Your task to perform on an android device: uninstall "Google Calendar" Image 0: 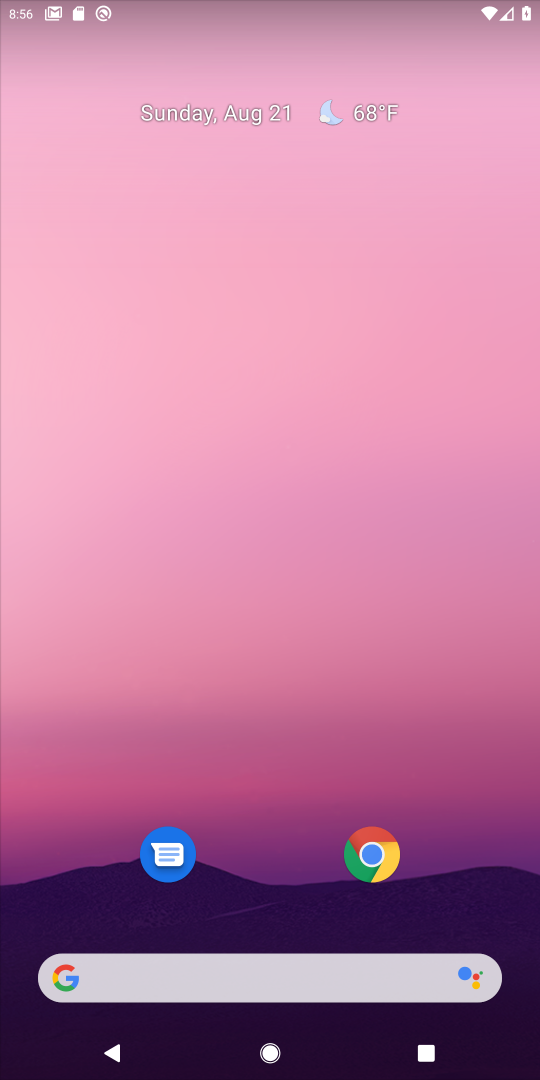
Step 0: click (264, 36)
Your task to perform on an android device: uninstall "Google Calendar" Image 1: 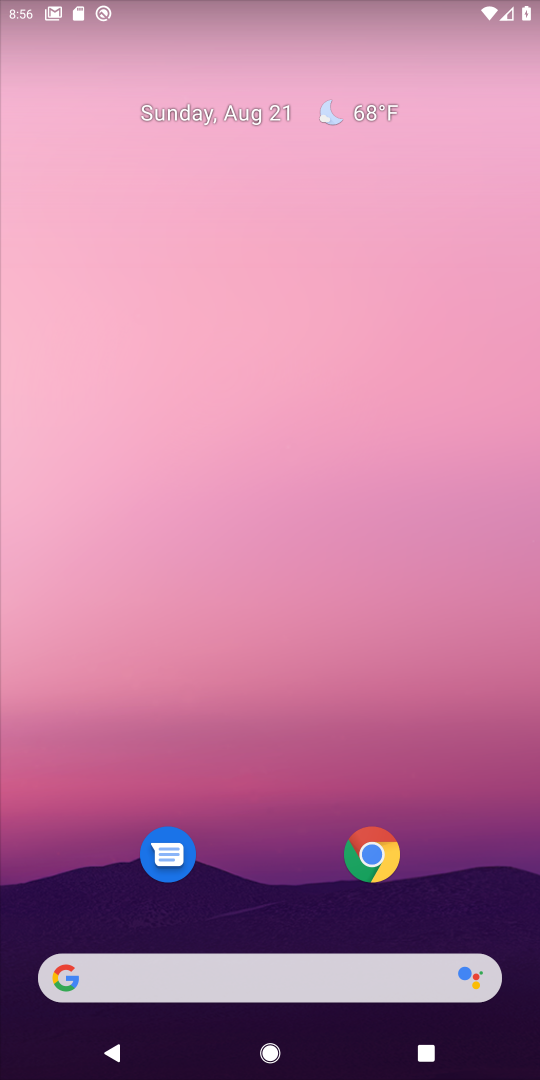
Step 1: drag from (297, 949) to (231, 54)
Your task to perform on an android device: uninstall "Google Calendar" Image 2: 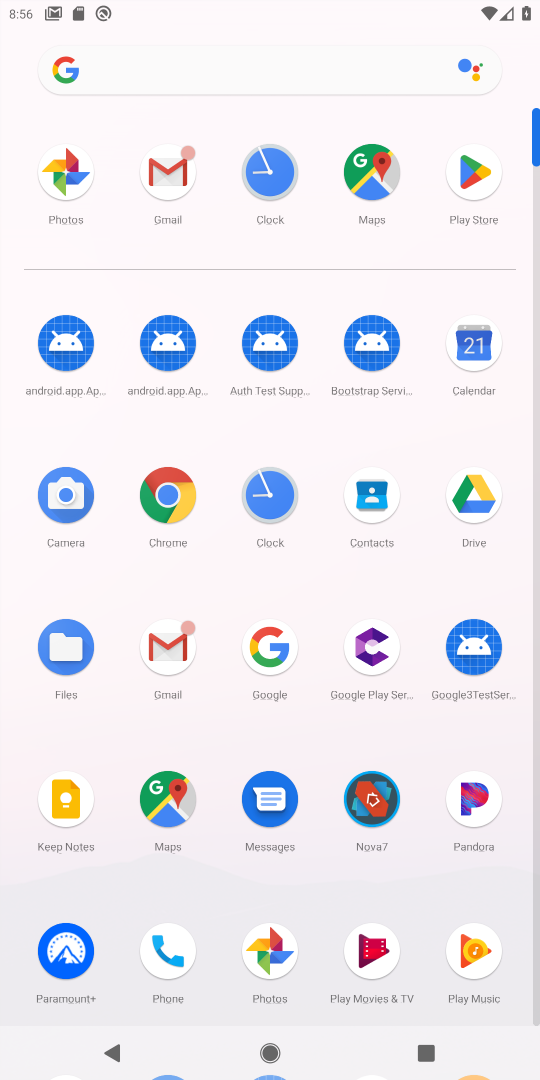
Step 2: click (471, 351)
Your task to perform on an android device: uninstall "Google Calendar" Image 3: 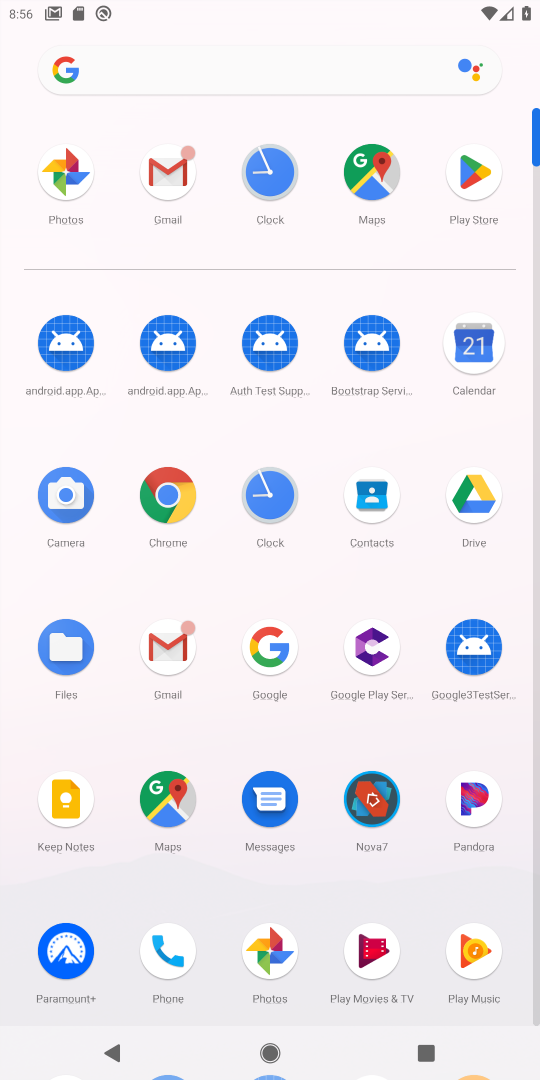
Step 3: task complete